Your task to perform on an android device: turn off airplane mode Image 0: 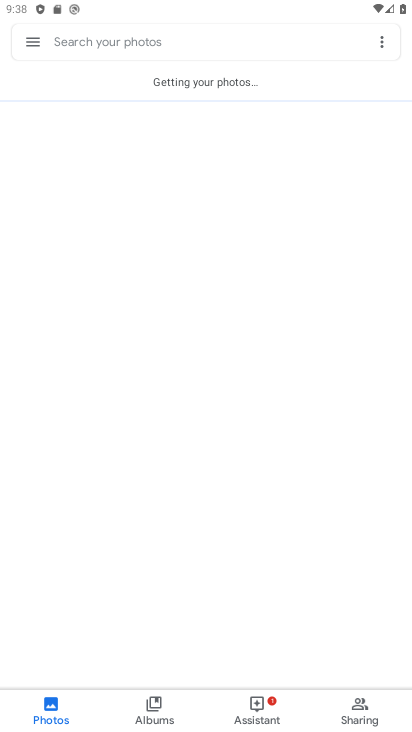
Step 0: press home button
Your task to perform on an android device: turn off airplane mode Image 1: 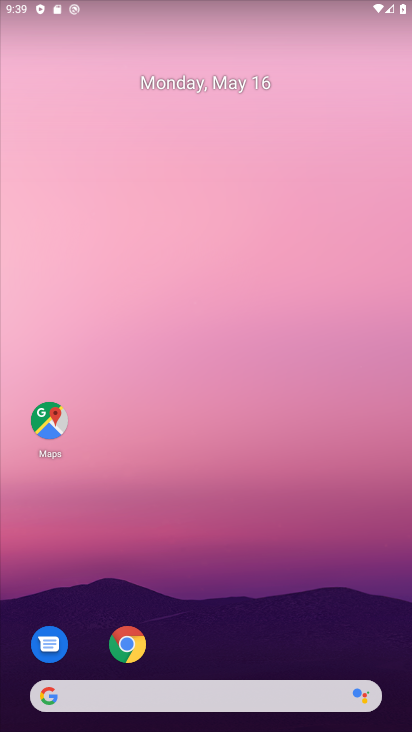
Step 1: drag from (345, 34) to (358, 576)
Your task to perform on an android device: turn off airplane mode Image 2: 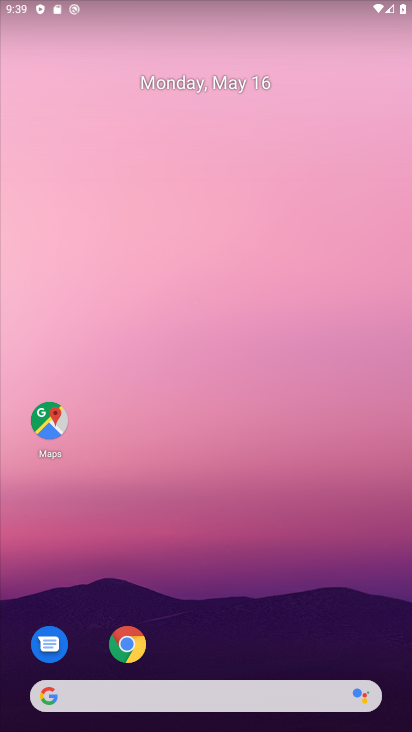
Step 2: drag from (134, 712) to (240, 138)
Your task to perform on an android device: turn off airplane mode Image 3: 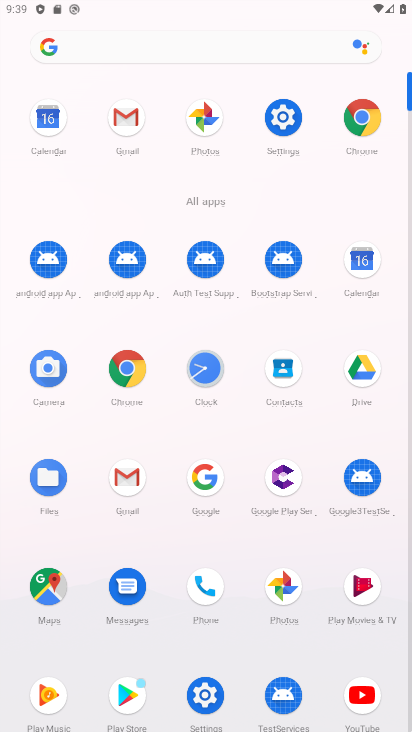
Step 3: click (273, 109)
Your task to perform on an android device: turn off airplane mode Image 4: 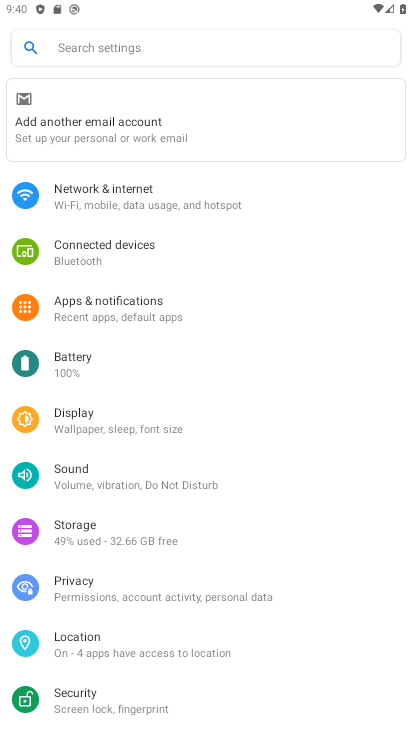
Step 4: click (144, 194)
Your task to perform on an android device: turn off airplane mode Image 5: 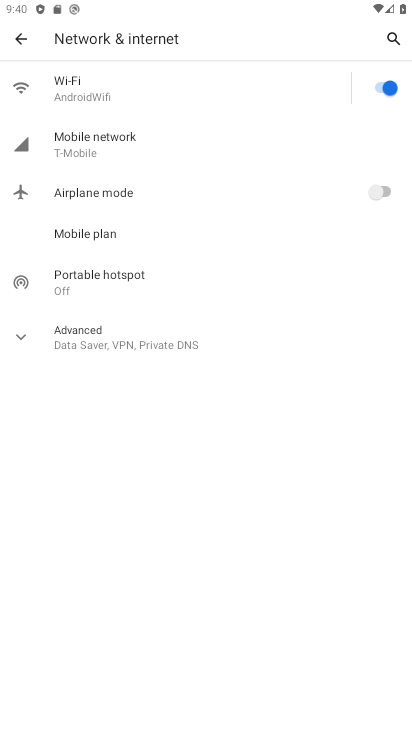
Step 5: task complete